Your task to perform on an android device: open chrome privacy settings Image 0: 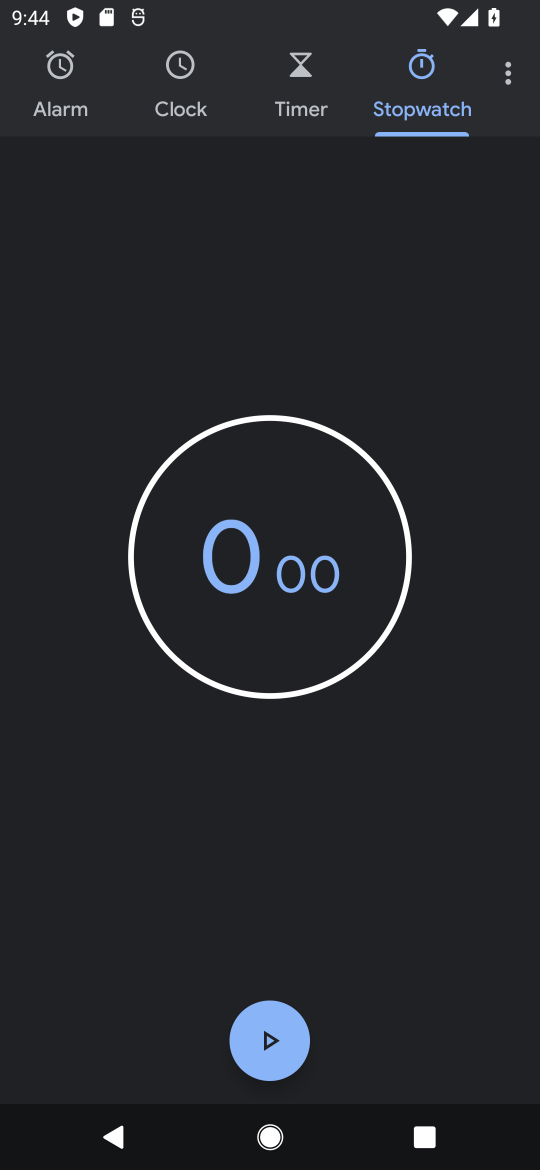
Step 0: press home button
Your task to perform on an android device: open chrome privacy settings Image 1: 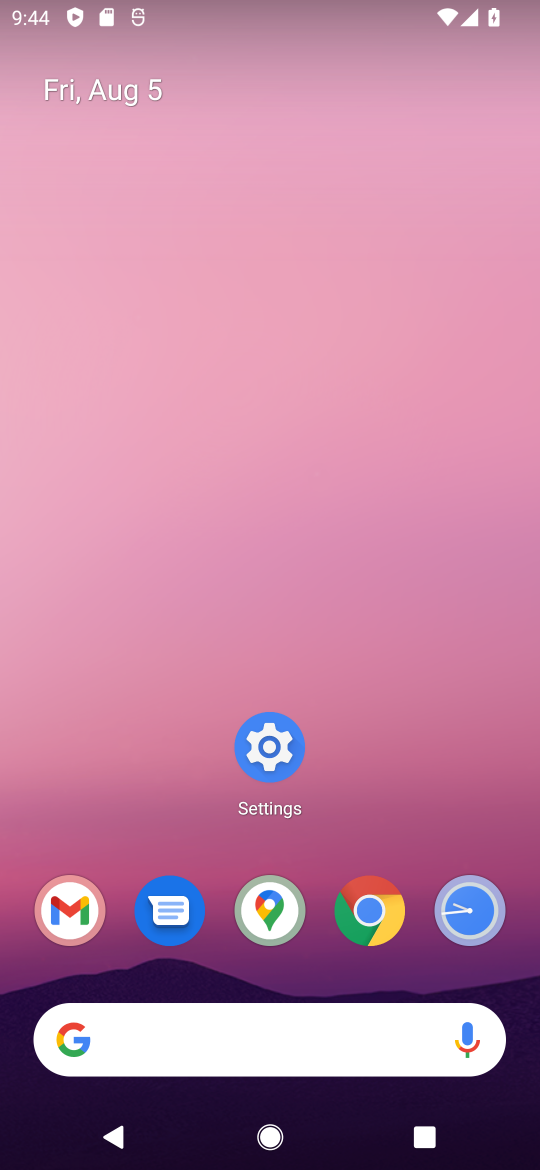
Step 1: click (365, 903)
Your task to perform on an android device: open chrome privacy settings Image 2: 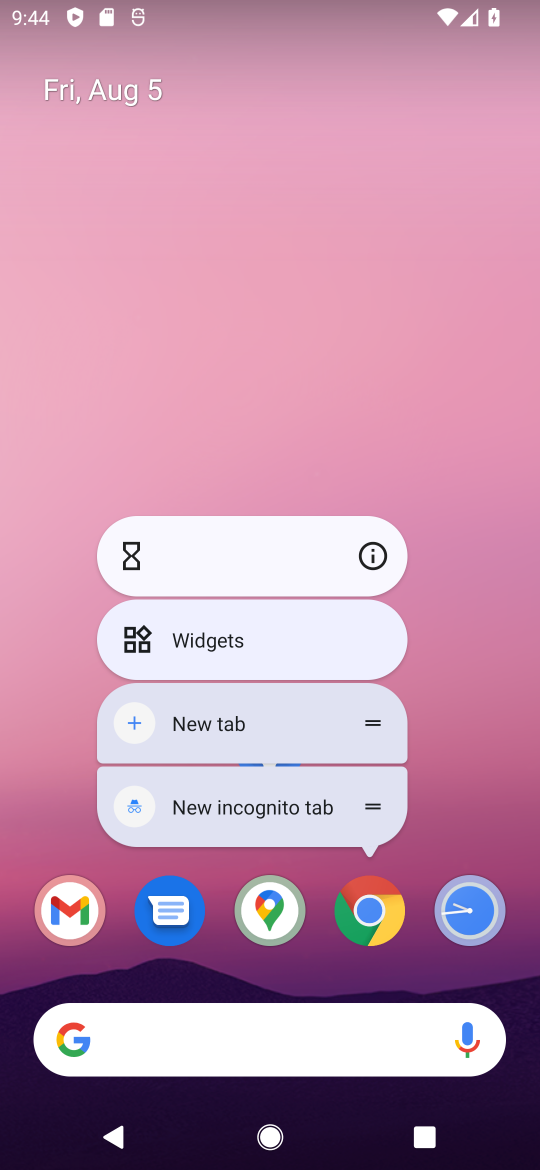
Step 2: click (373, 914)
Your task to perform on an android device: open chrome privacy settings Image 3: 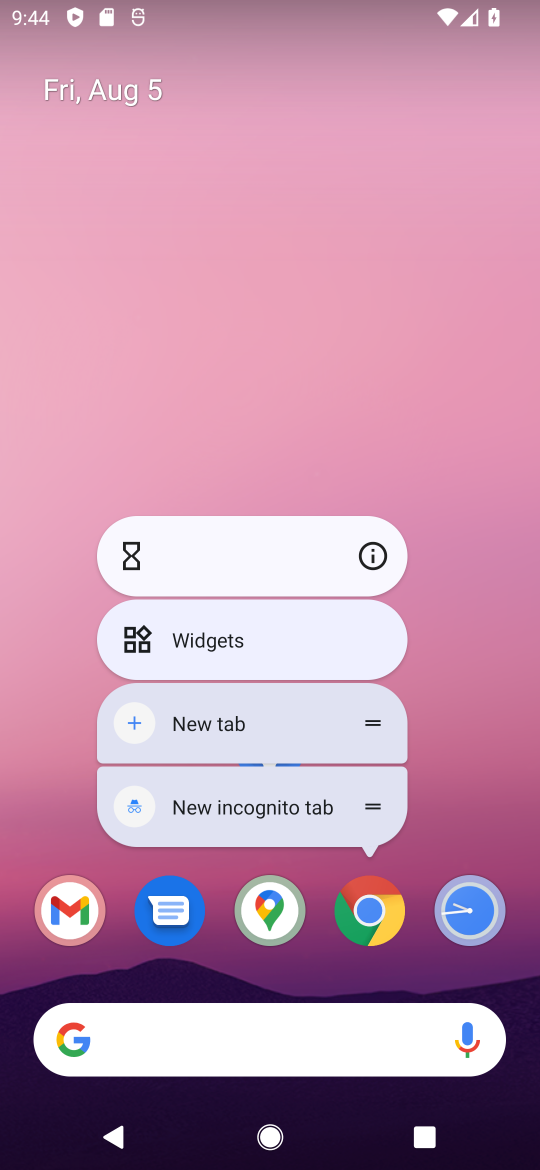
Step 3: click (373, 917)
Your task to perform on an android device: open chrome privacy settings Image 4: 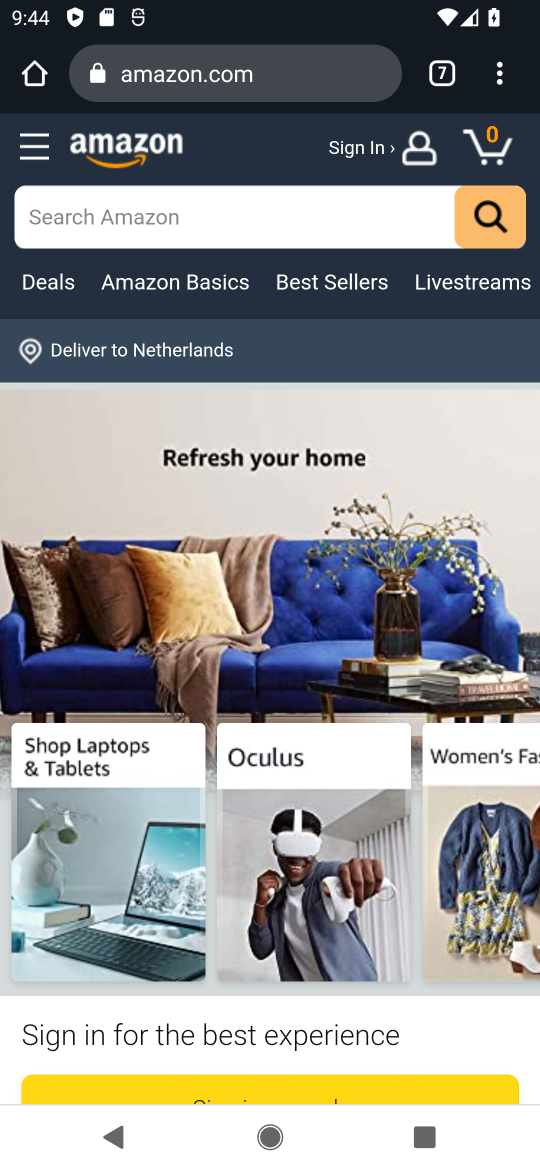
Step 4: drag from (490, 60) to (381, 947)
Your task to perform on an android device: open chrome privacy settings Image 5: 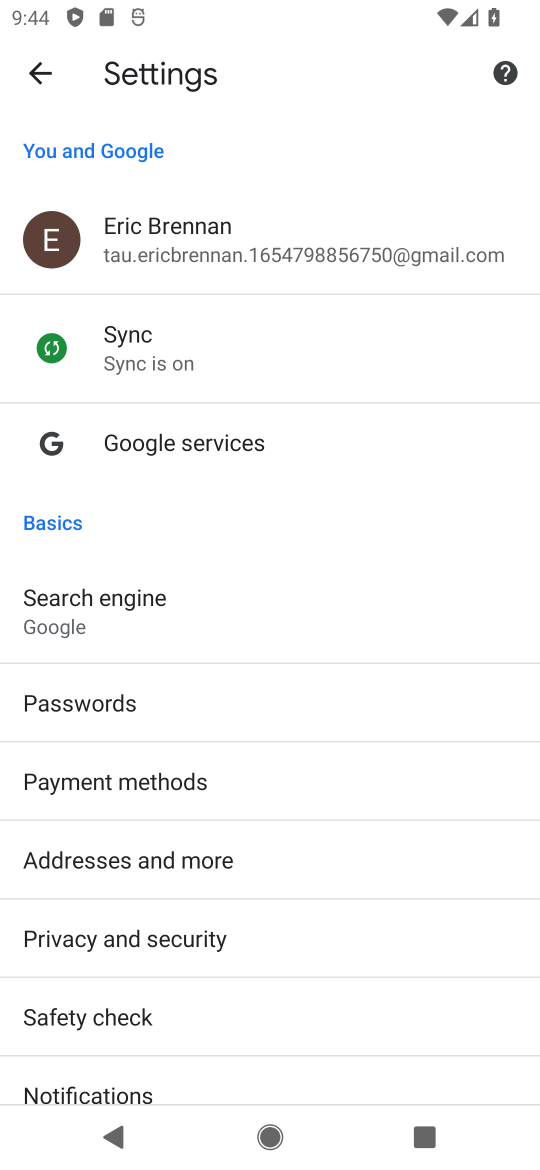
Step 5: drag from (254, 975) to (348, 391)
Your task to perform on an android device: open chrome privacy settings Image 6: 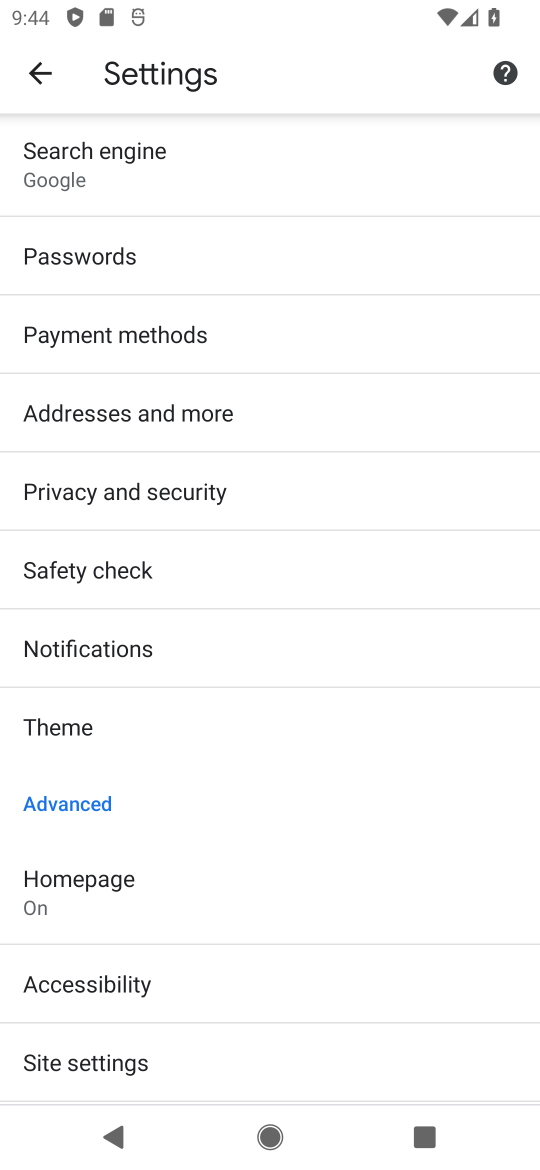
Step 6: click (174, 496)
Your task to perform on an android device: open chrome privacy settings Image 7: 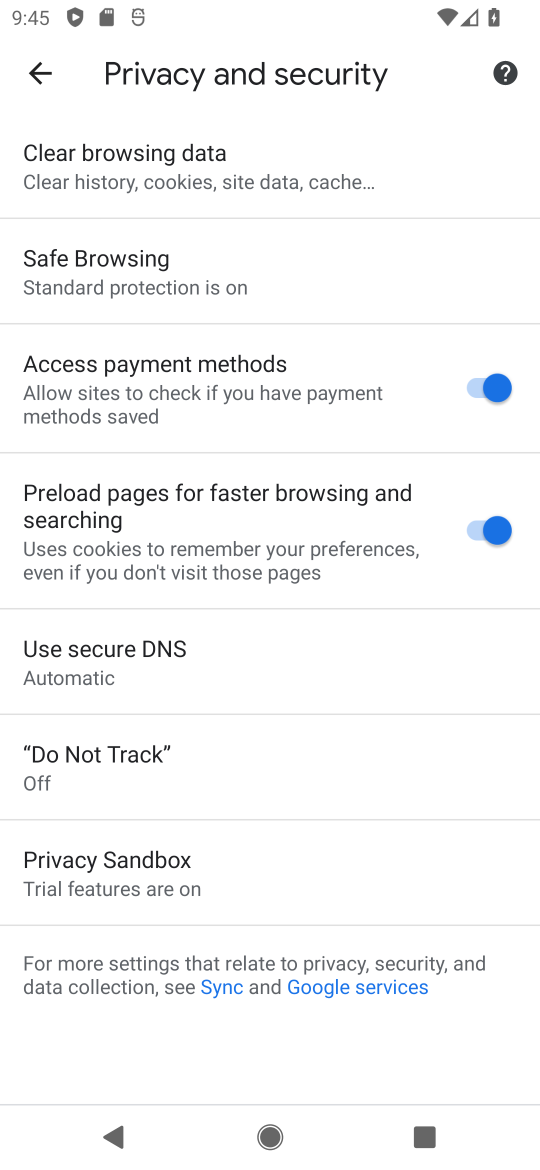
Step 7: task complete